Your task to perform on an android device: see sites visited before in the chrome app Image 0: 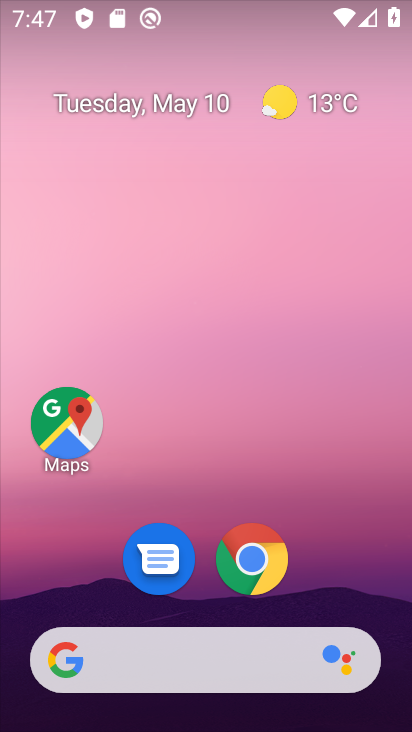
Step 0: click (248, 557)
Your task to perform on an android device: see sites visited before in the chrome app Image 1: 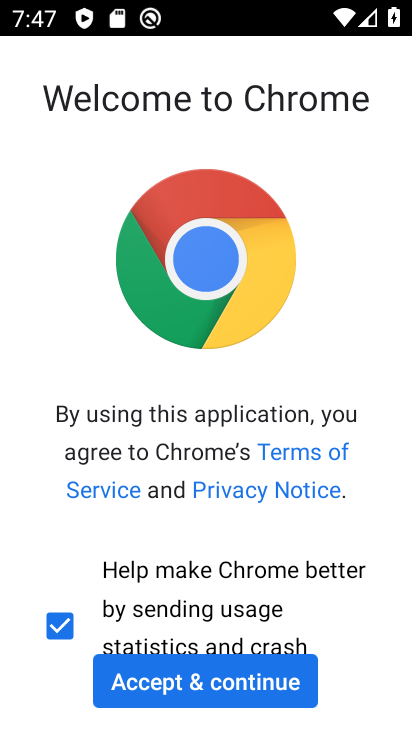
Step 1: click (147, 686)
Your task to perform on an android device: see sites visited before in the chrome app Image 2: 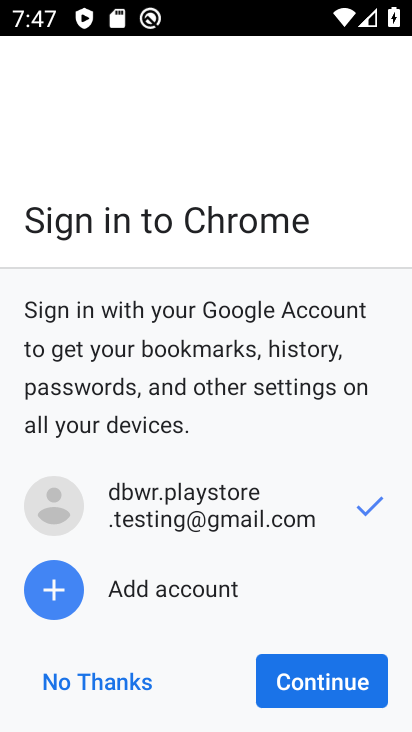
Step 2: click (290, 684)
Your task to perform on an android device: see sites visited before in the chrome app Image 3: 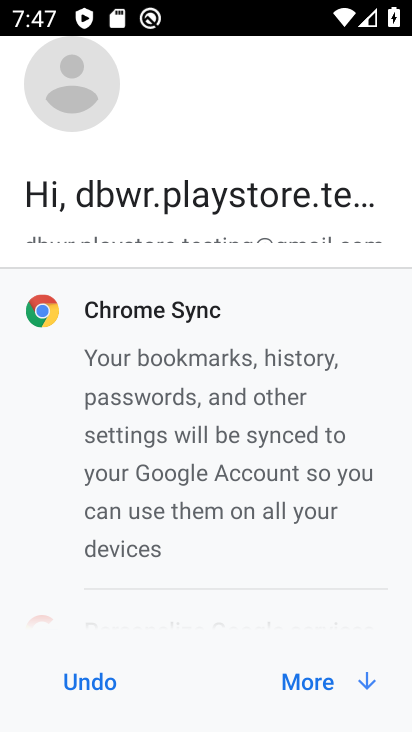
Step 3: click (317, 683)
Your task to perform on an android device: see sites visited before in the chrome app Image 4: 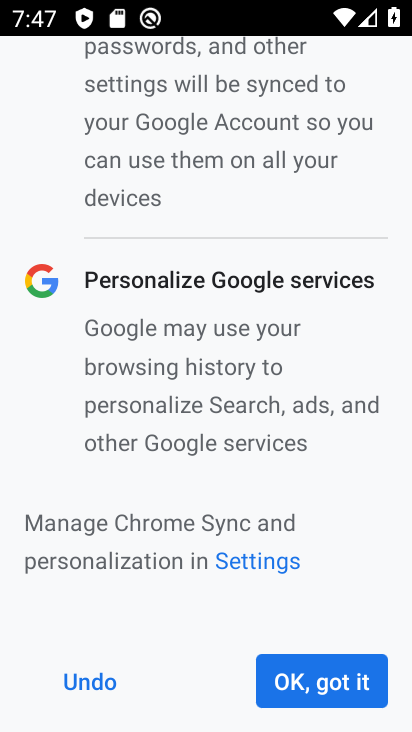
Step 4: click (317, 681)
Your task to perform on an android device: see sites visited before in the chrome app Image 5: 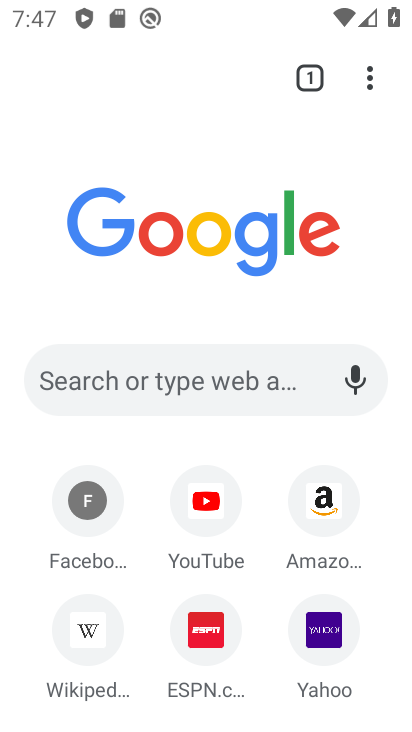
Step 5: click (367, 86)
Your task to perform on an android device: see sites visited before in the chrome app Image 6: 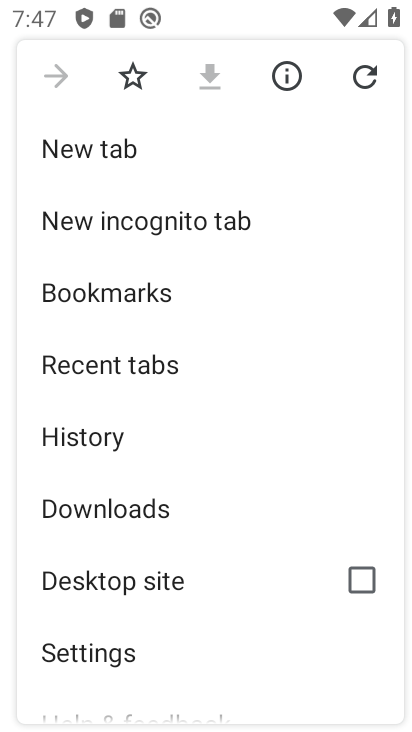
Step 6: click (92, 436)
Your task to perform on an android device: see sites visited before in the chrome app Image 7: 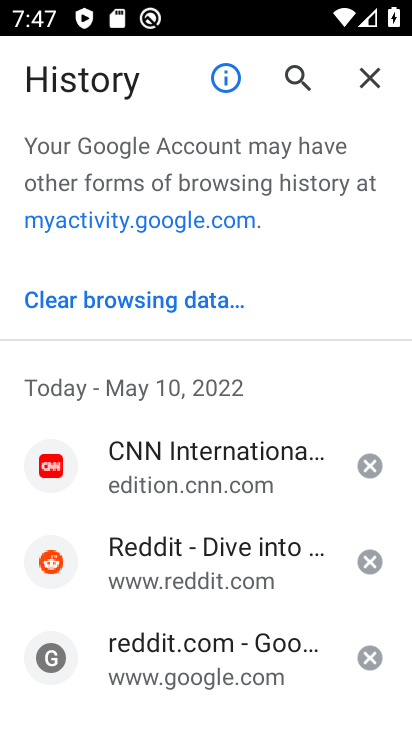
Step 7: task complete